Your task to perform on an android device: check google app version Image 0: 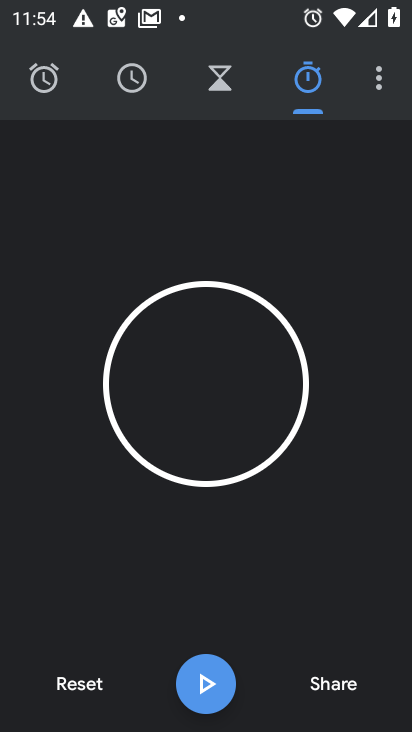
Step 0: press home button
Your task to perform on an android device: check google app version Image 1: 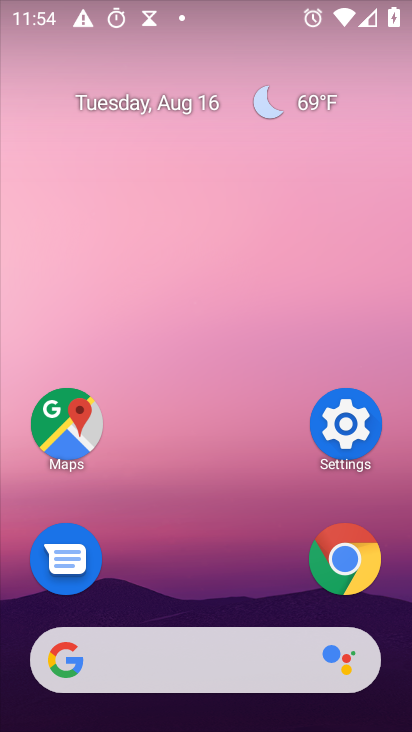
Step 1: drag from (206, 632) to (347, 92)
Your task to perform on an android device: check google app version Image 2: 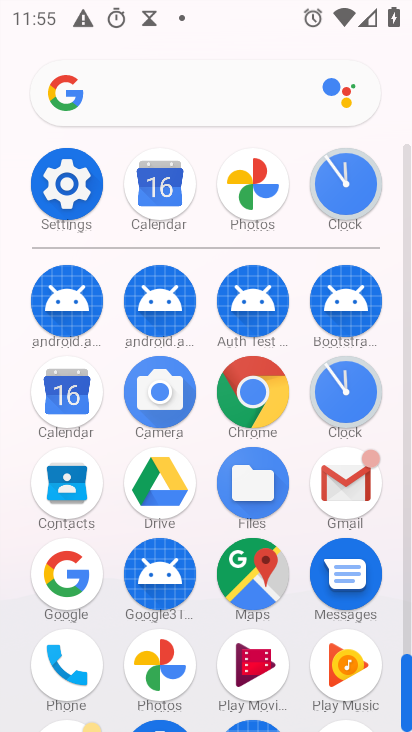
Step 2: click (74, 577)
Your task to perform on an android device: check google app version Image 3: 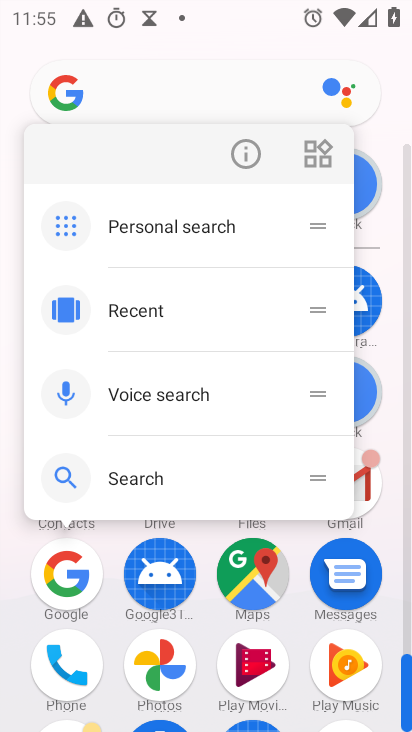
Step 3: click (249, 154)
Your task to perform on an android device: check google app version Image 4: 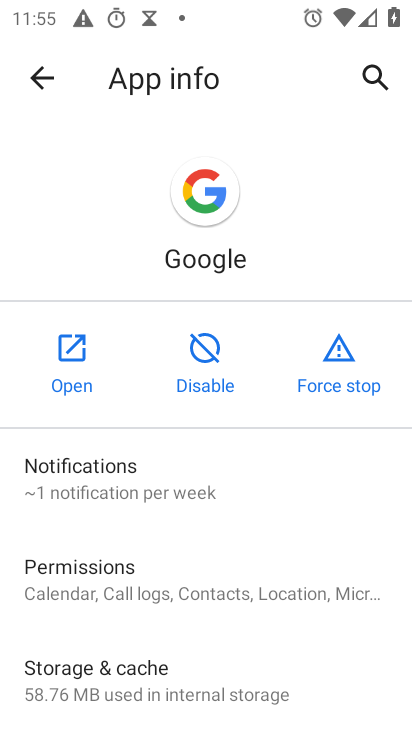
Step 4: drag from (192, 657) to (287, 140)
Your task to perform on an android device: check google app version Image 5: 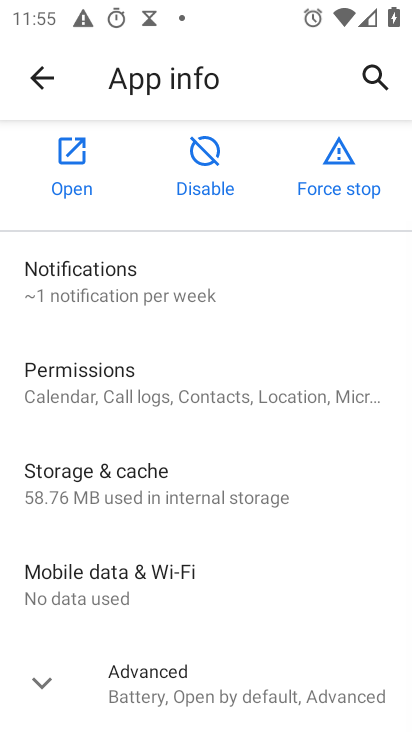
Step 5: click (144, 678)
Your task to perform on an android device: check google app version Image 6: 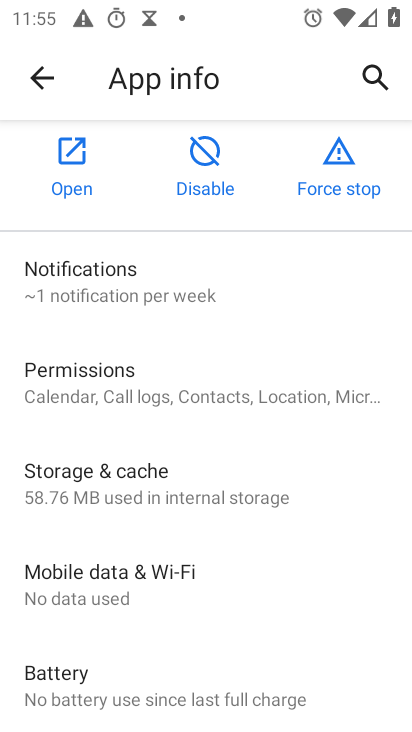
Step 6: task complete